Your task to perform on an android device: toggle pop-ups in chrome Image 0: 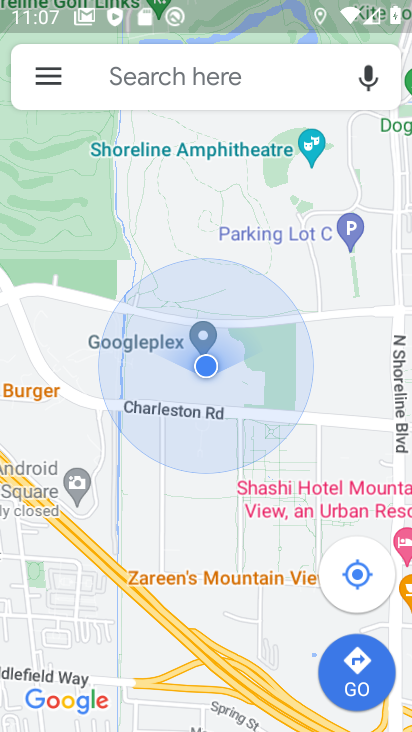
Step 0: press home button
Your task to perform on an android device: toggle pop-ups in chrome Image 1: 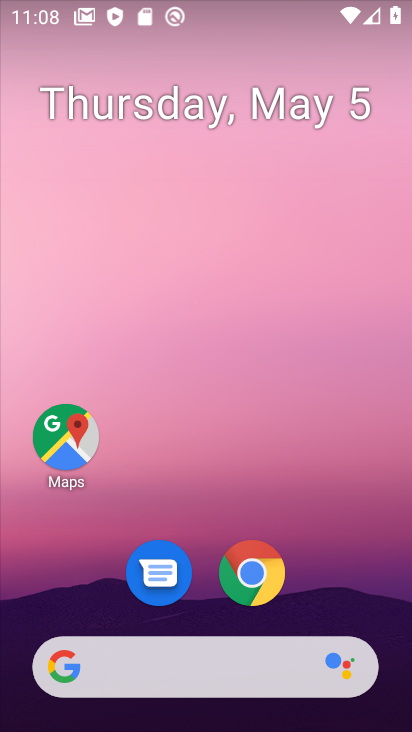
Step 1: click (253, 570)
Your task to perform on an android device: toggle pop-ups in chrome Image 2: 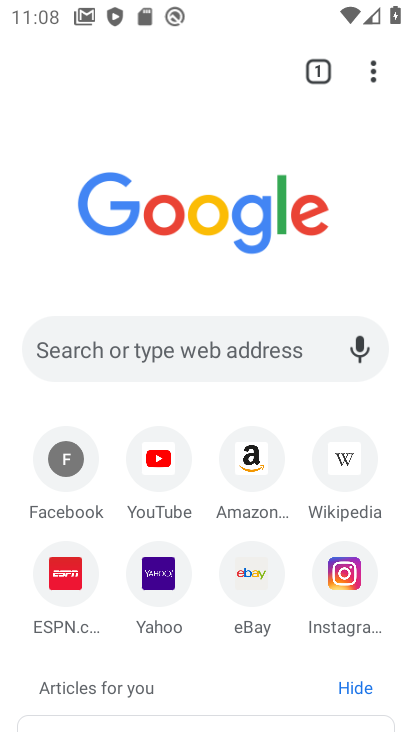
Step 2: click (375, 70)
Your task to perform on an android device: toggle pop-ups in chrome Image 3: 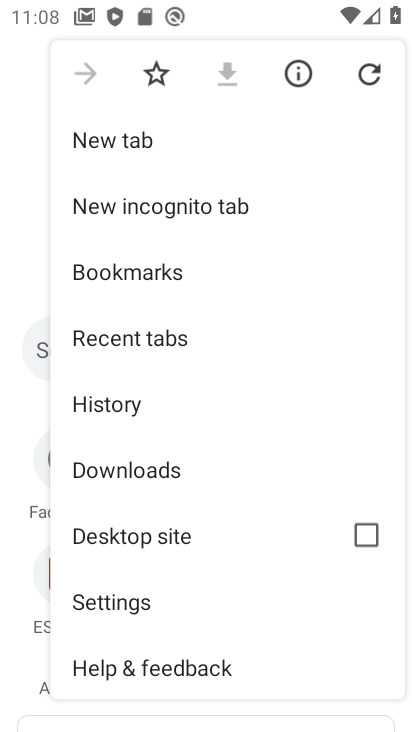
Step 3: click (129, 601)
Your task to perform on an android device: toggle pop-ups in chrome Image 4: 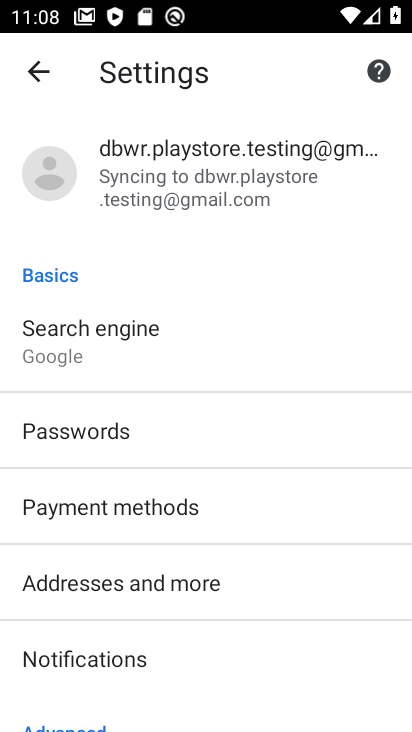
Step 4: drag from (172, 626) to (205, 494)
Your task to perform on an android device: toggle pop-ups in chrome Image 5: 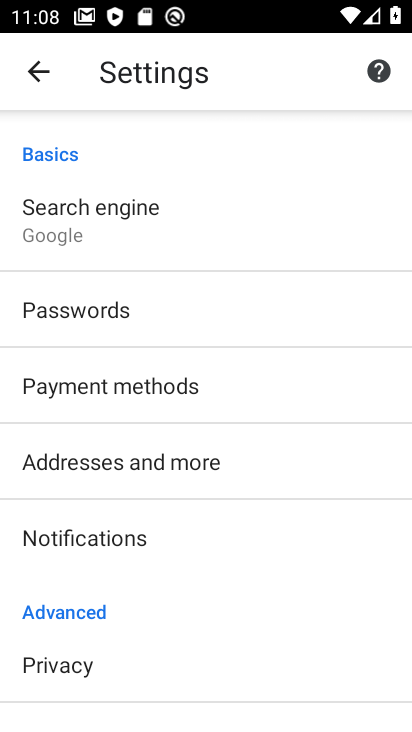
Step 5: drag from (167, 616) to (215, 488)
Your task to perform on an android device: toggle pop-ups in chrome Image 6: 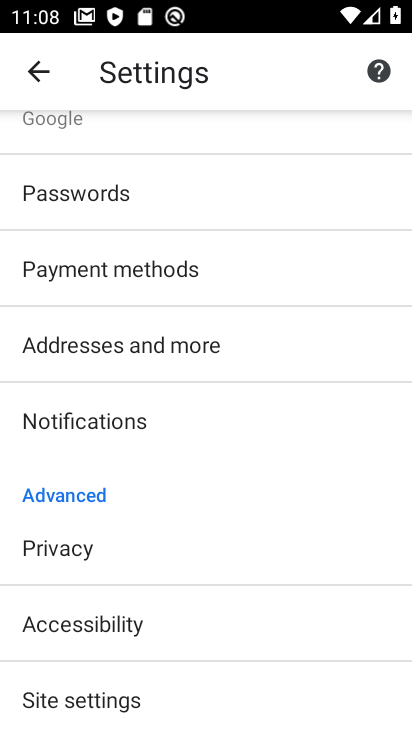
Step 6: drag from (162, 651) to (208, 558)
Your task to perform on an android device: toggle pop-ups in chrome Image 7: 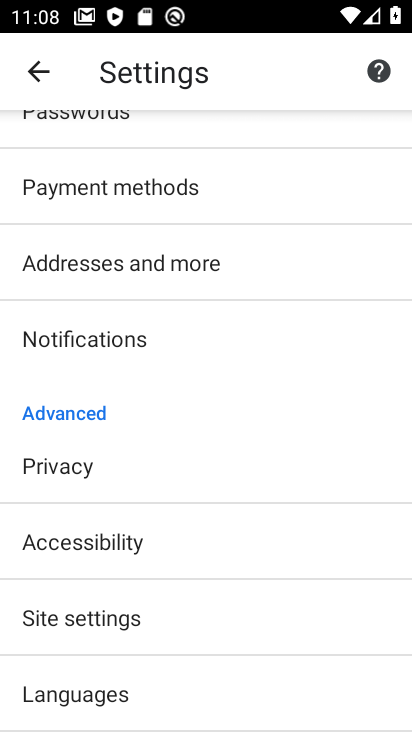
Step 7: click (124, 622)
Your task to perform on an android device: toggle pop-ups in chrome Image 8: 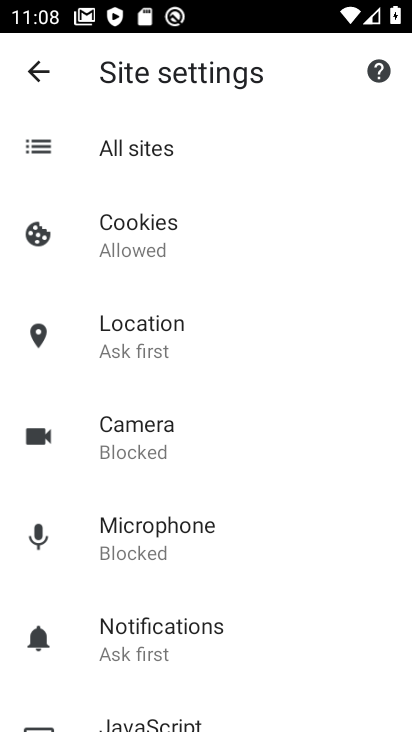
Step 8: drag from (221, 605) to (237, 543)
Your task to perform on an android device: toggle pop-ups in chrome Image 9: 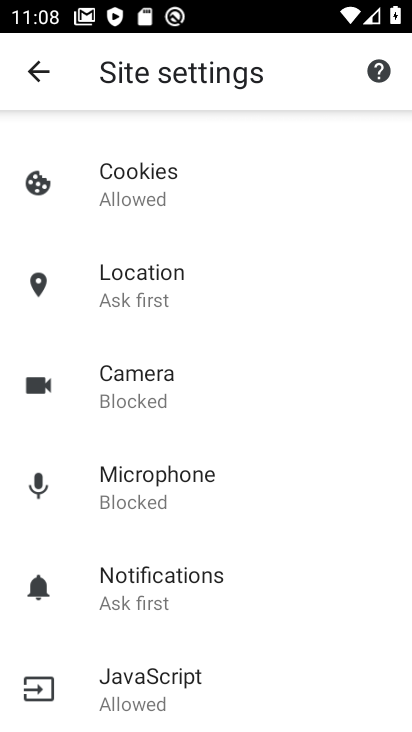
Step 9: drag from (238, 624) to (267, 516)
Your task to perform on an android device: toggle pop-ups in chrome Image 10: 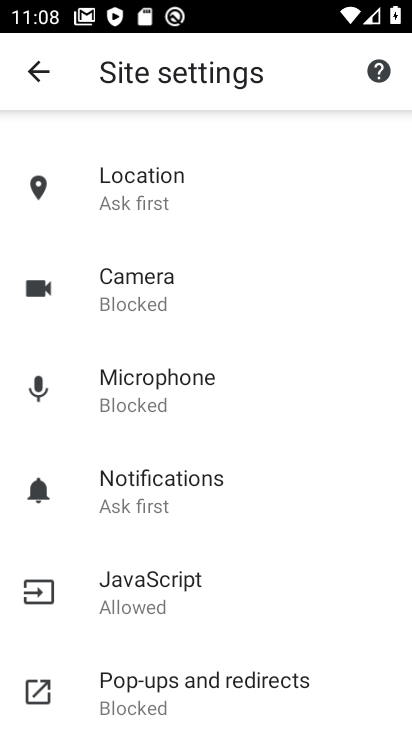
Step 10: drag from (227, 636) to (278, 540)
Your task to perform on an android device: toggle pop-ups in chrome Image 11: 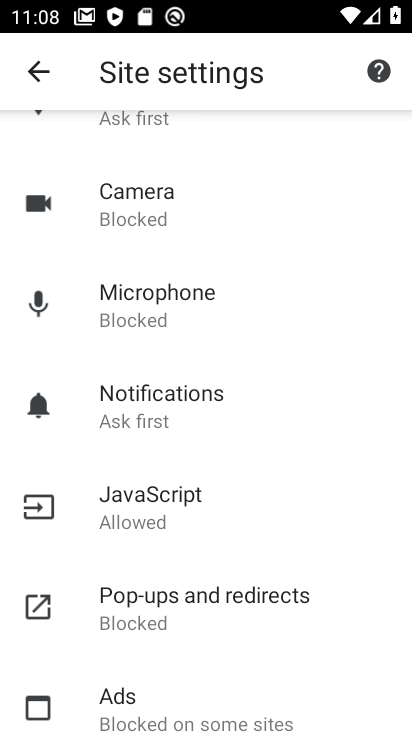
Step 11: click (196, 604)
Your task to perform on an android device: toggle pop-ups in chrome Image 12: 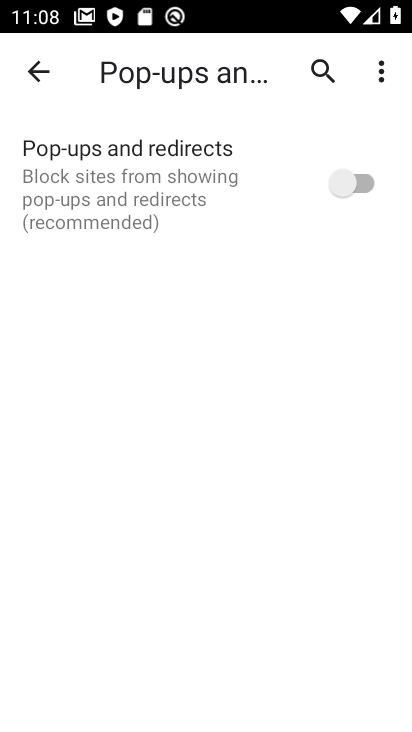
Step 12: click (354, 190)
Your task to perform on an android device: toggle pop-ups in chrome Image 13: 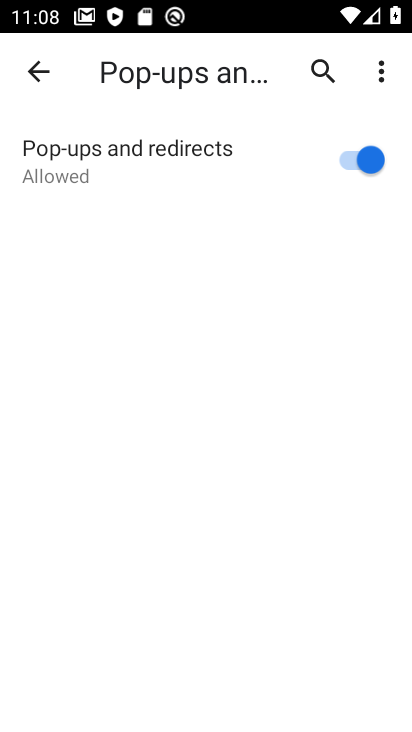
Step 13: task complete